Your task to perform on an android device: turn off javascript in the chrome app Image 0: 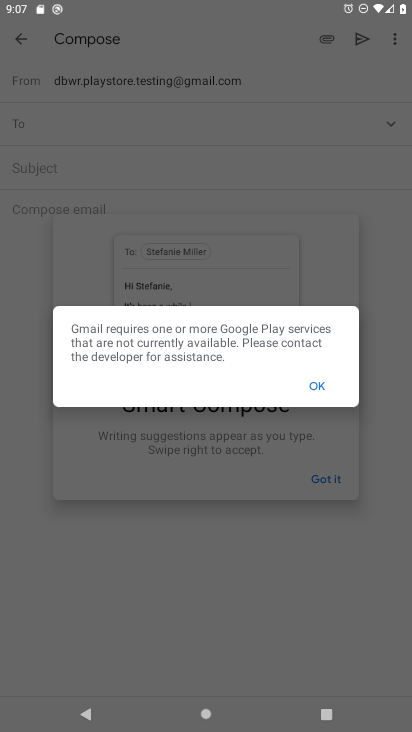
Step 0: press home button
Your task to perform on an android device: turn off javascript in the chrome app Image 1: 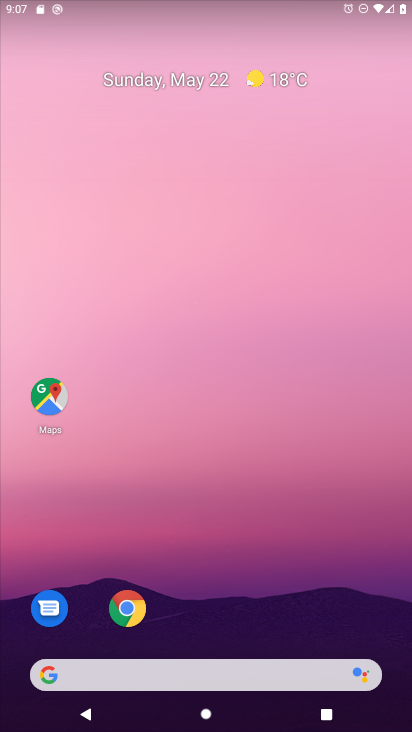
Step 1: click (130, 609)
Your task to perform on an android device: turn off javascript in the chrome app Image 2: 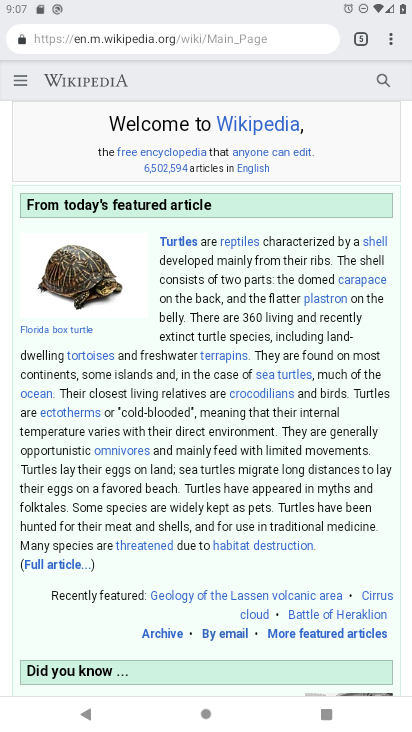
Step 2: click (391, 42)
Your task to perform on an android device: turn off javascript in the chrome app Image 3: 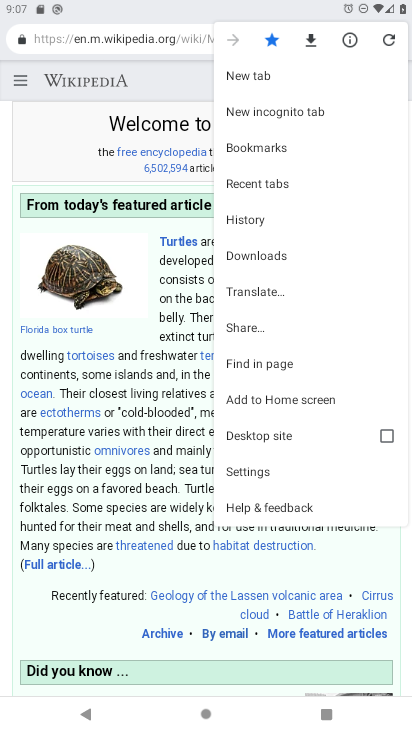
Step 3: click (249, 469)
Your task to perform on an android device: turn off javascript in the chrome app Image 4: 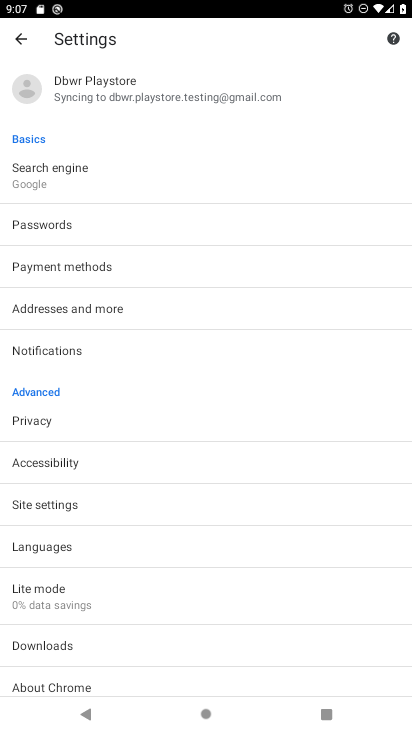
Step 4: drag from (90, 606) to (93, 459)
Your task to perform on an android device: turn off javascript in the chrome app Image 5: 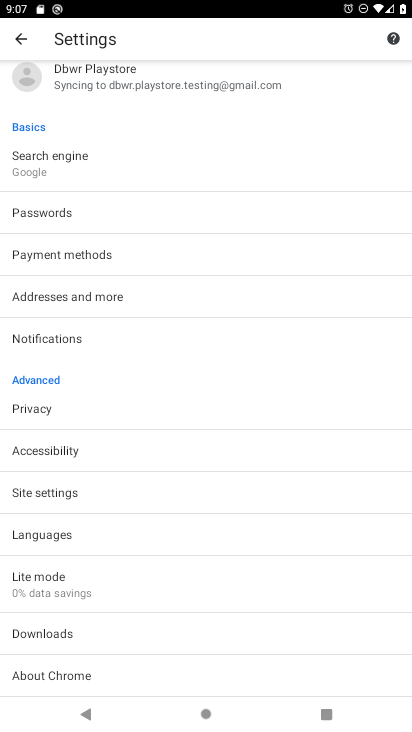
Step 5: click (48, 494)
Your task to perform on an android device: turn off javascript in the chrome app Image 6: 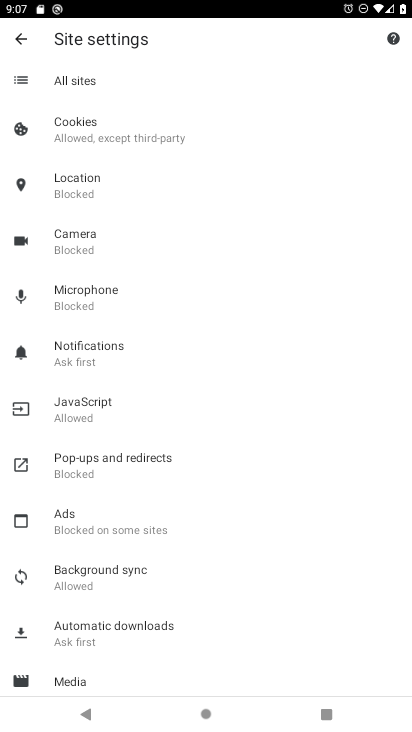
Step 6: click (95, 405)
Your task to perform on an android device: turn off javascript in the chrome app Image 7: 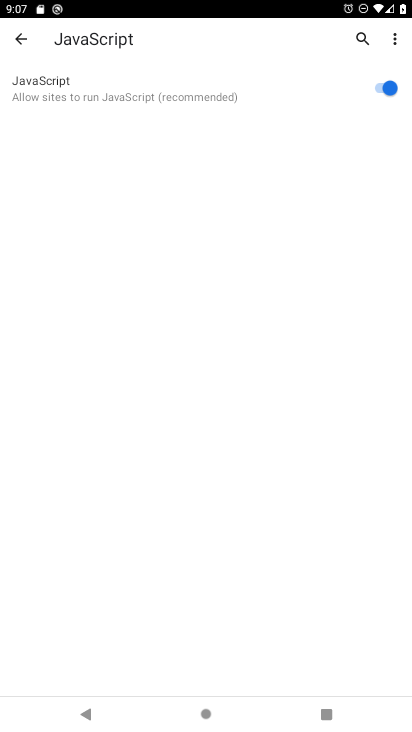
Step 7: click (380, 91)
Your task to perform on an android device: turn off javascript in the chrome app Image 8: 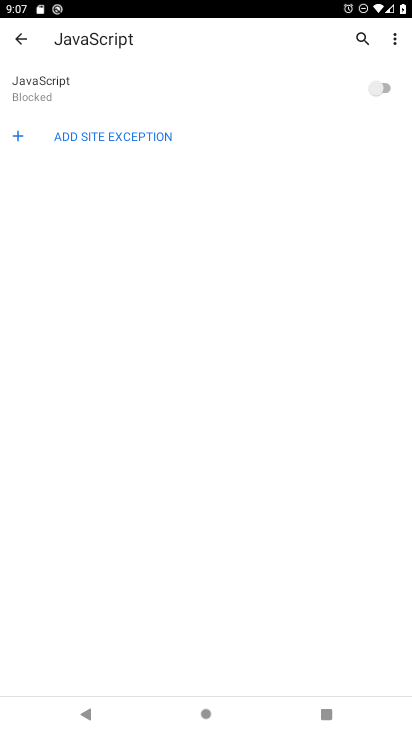
Step 8: task complete